Your task to perform on an android device: Is it going to rain tomorrow? Image 0: 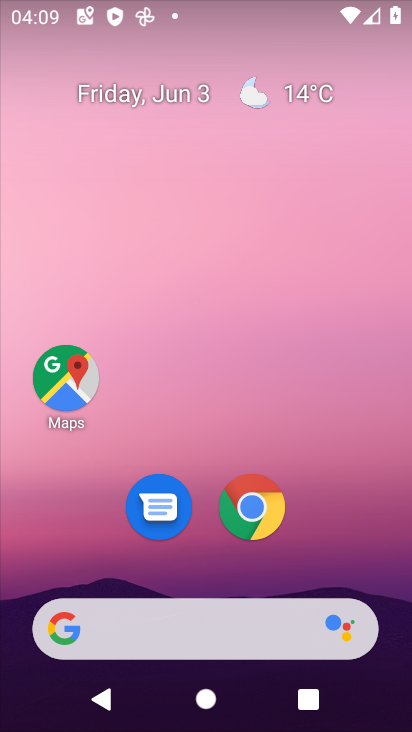
Step 0: press home button
Your task to perform on an android device: Is it going to rain tomorrow? Image 1: 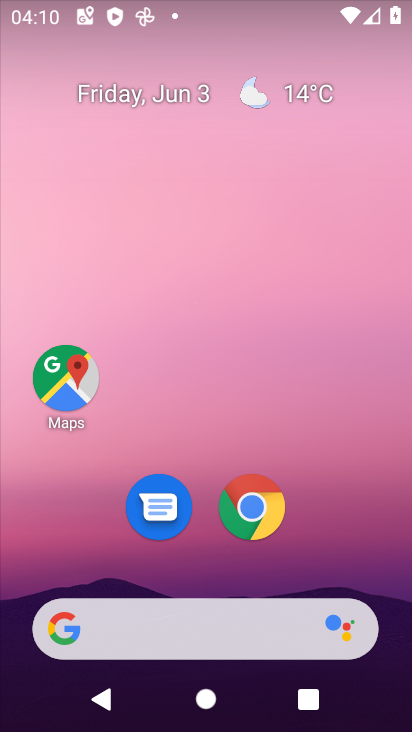
Step 1: click (72, 637)
Your task to perform on an android device: Is it going to rain tomorrow? Image 2: 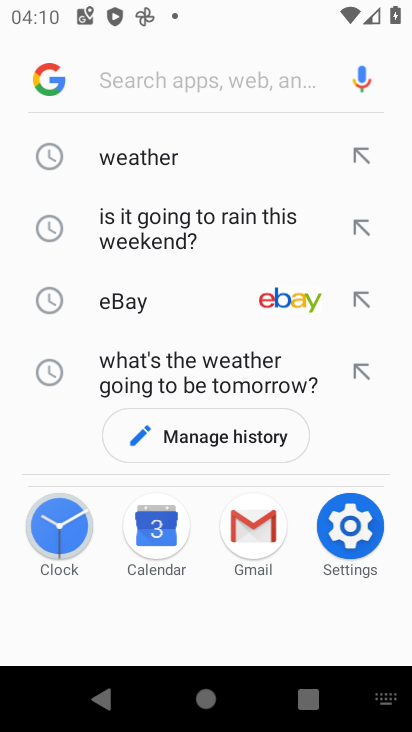
Step 2: type "Is it going to rain tomorrow?"
Your task to perform on an android device: Is it going to rain tomorrow? Image 3: 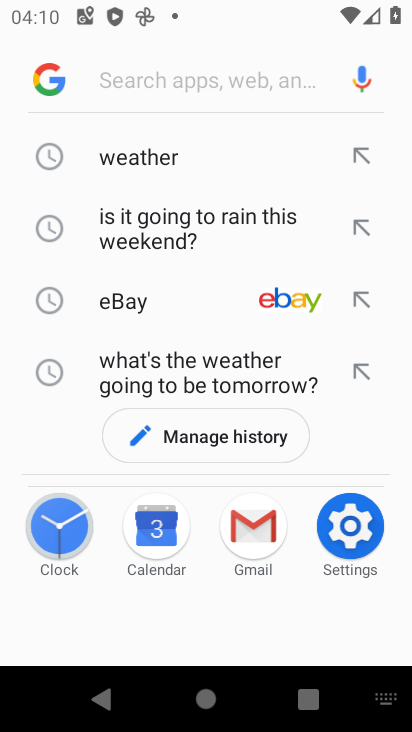
Step 3: click (151, 66)
Your task to perform on an android device: Is it going to rain tomorrow? Image 4: 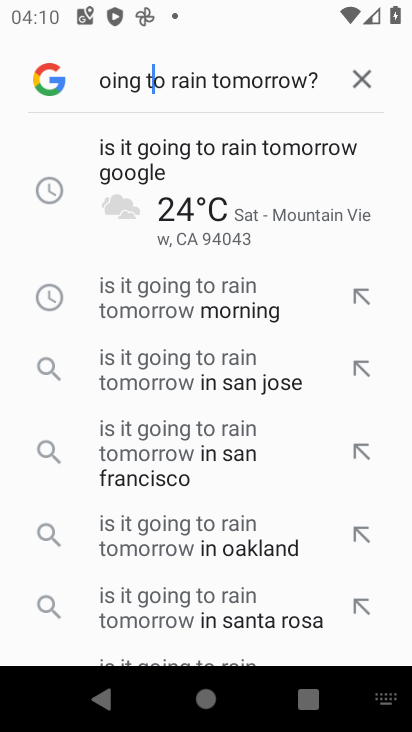
Step 4: click (240, 152)
Your task to perform on an android device: Is it going to rain tomorrow? Image 5: 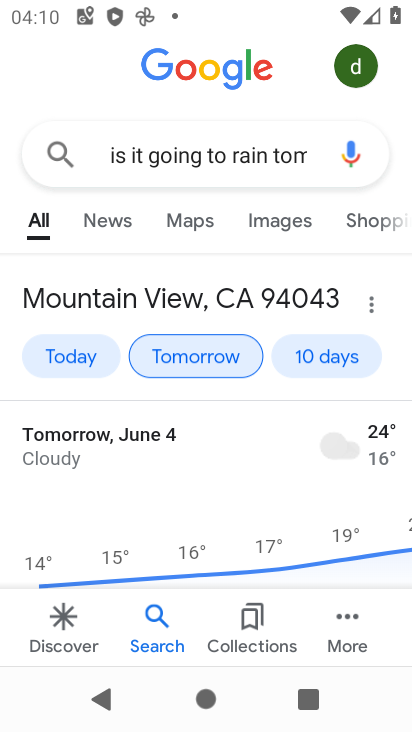
Step 5: task complete